Your task to perform on an android device: turn pop-ups off in chrome Image 0: 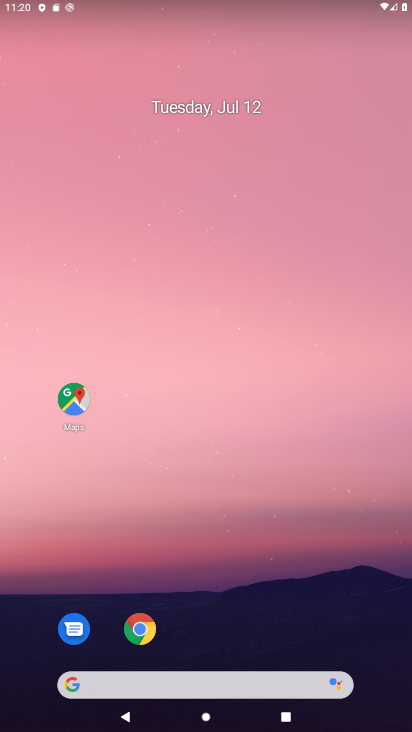
Step 0: click (228, 92)
Your task to perform on an android device: turn pop-ups off in chrome Image 1: 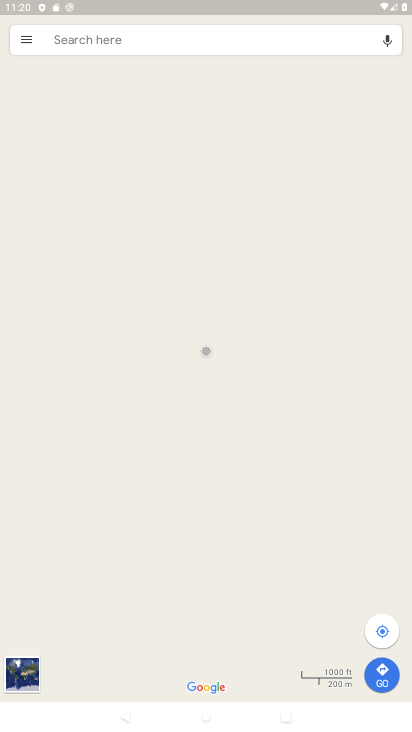
Step 1: press home button
Your task to perform on an android device: turn pop-ups off in chrome Image 2: 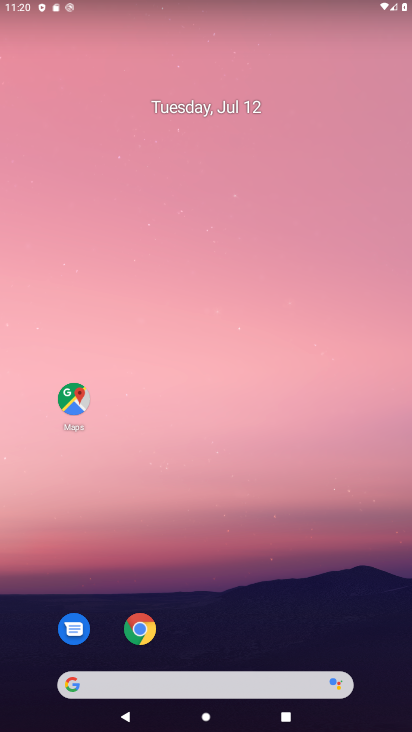
Step 2: click (136, 637)
Your task to perform on an android device: turn pop-ups off in chrome Image 3: 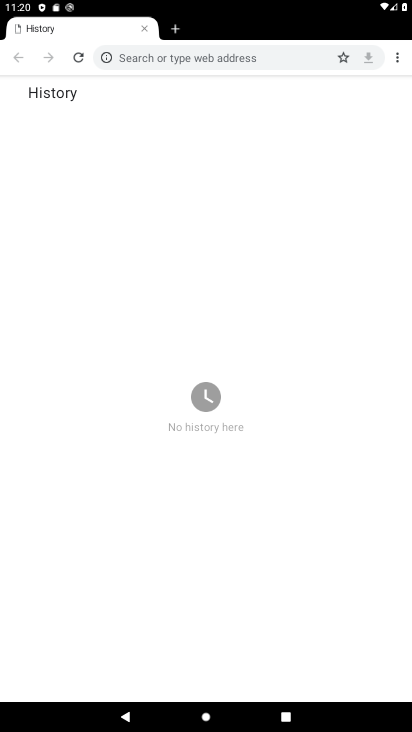
Step 3: click (394, 58)
Your task to perform on an android device: turn pop-ups off in chrome Image 4: 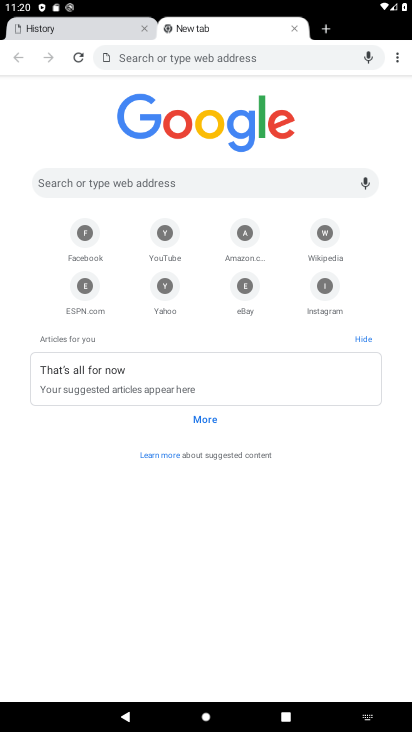
Step 4: click (395, 62)
Your task to perform on an android device: turn pop-ups off in chrome Image 5: 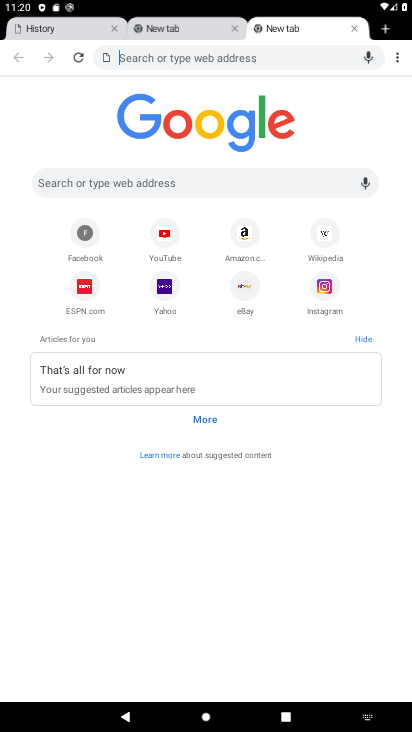
Step 5: click (403, 52)
Your task to perform on an android device: turn pop-ups off in chrome Image 6: 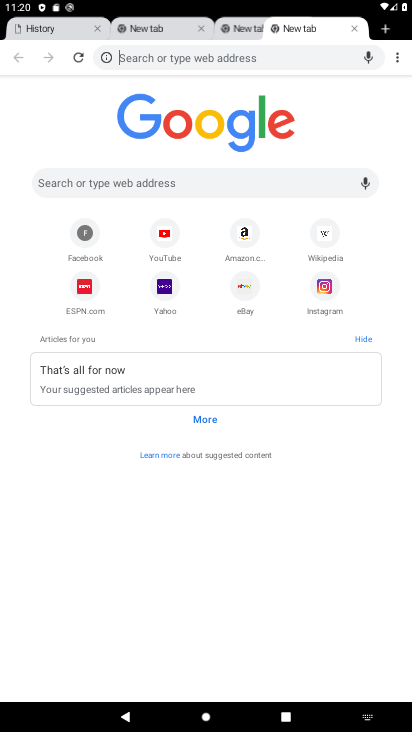
Step 6: click (403, 52)
Your task to perform on an android device: turn pop-ups off in chrome Image 7: 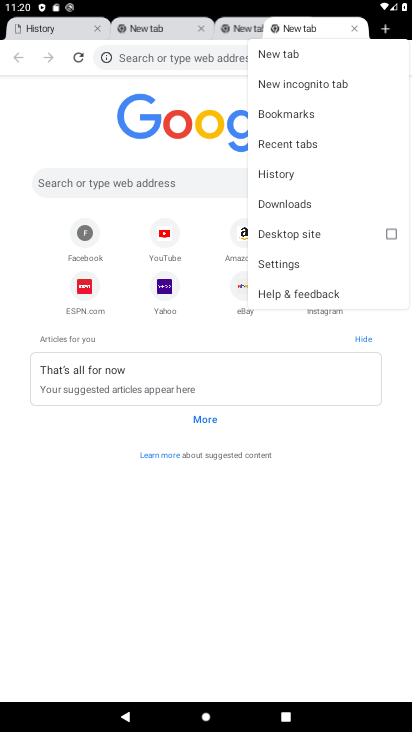
Step 7: click (295, 262)
Your task to perform on an android device: turn pop-ups off in chrome Image 8: 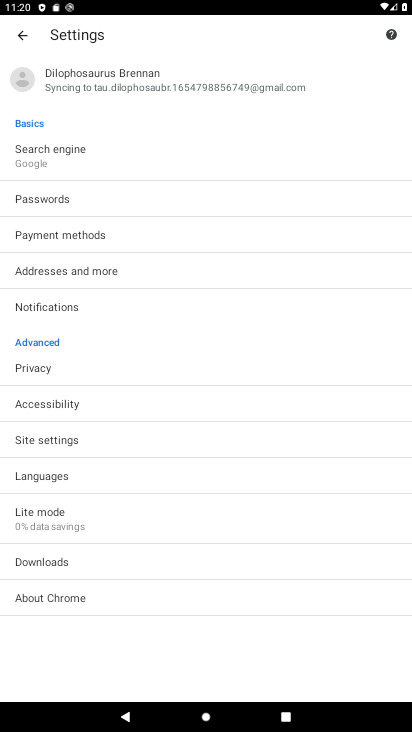
Step 8: click (35, 439)
Your task to perform on an android device: turn pop-ups off in chrome Image 9: 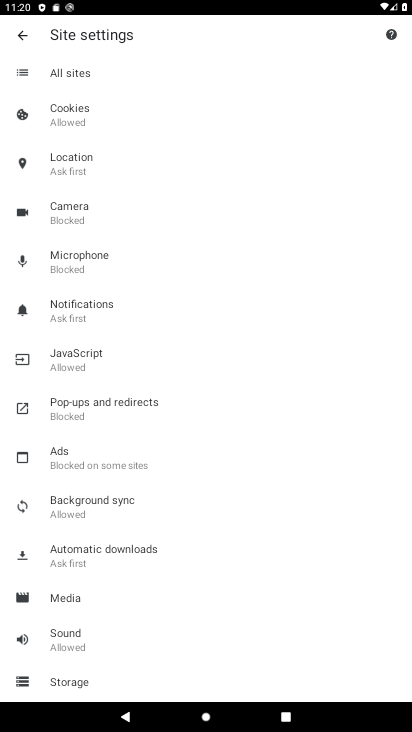
Step 9: click (94, 414)
Your task to perform on an android device: turn pop-ups off in chrome Image 10: 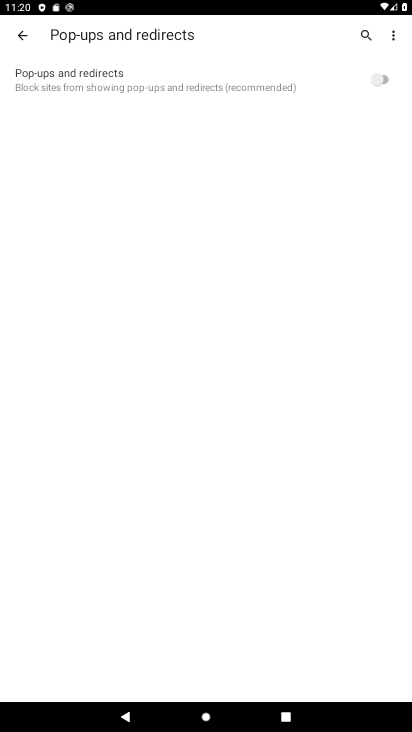
Step 10: task complete